Your task to perform on an android device: make emails show in primary in the gmail app Image 0: 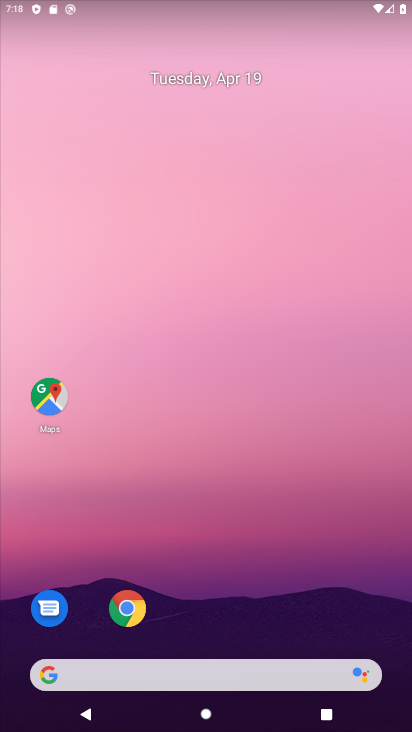
Step 0: drag from (272, 574) to (301, 206)
Your task to perform on an android device: make emails show in primary in the gmail app Image 1: 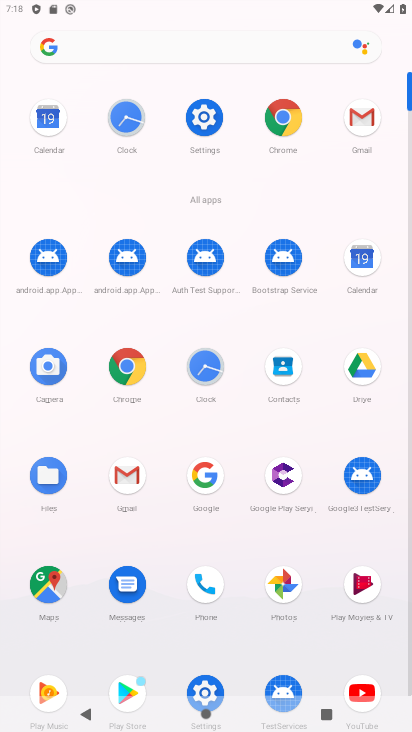
Step 1: click (123, 477)
Your task to perform on an android device: make emails show in primary in the gmail app Image 2: 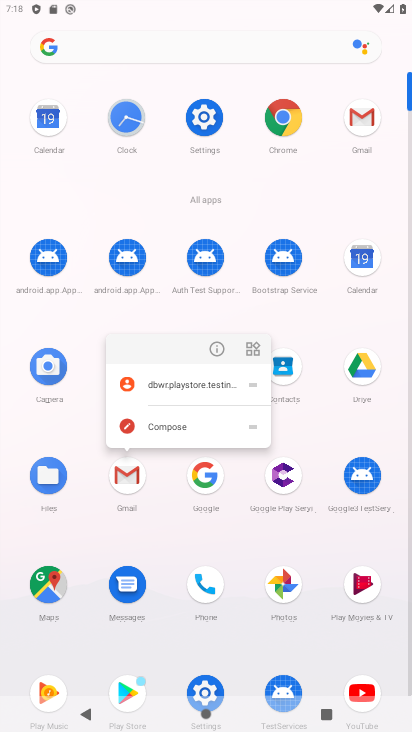
Step 2: click (121, 474)
Your task to perform on an android device: make emails show in primary in the gmail app Image 3: 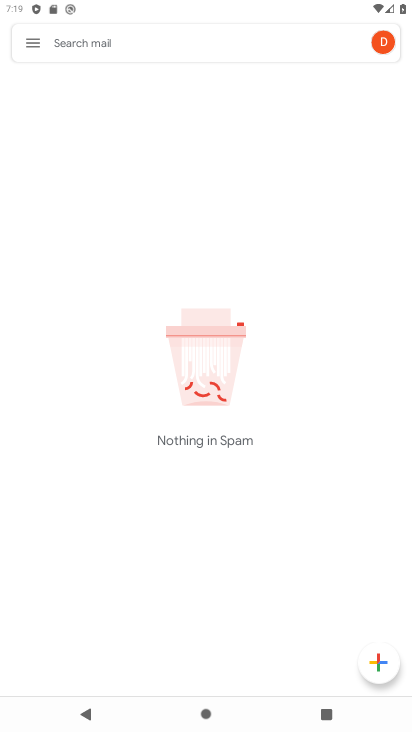
Step 3: click (26, 39)
Your task to perform on an android device: make emails show in primary in the gmail app Image 4: 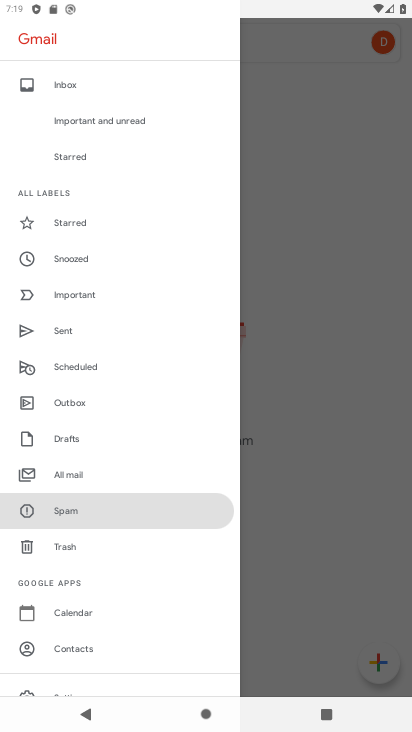
Step 4: drag from (135, 642) to (157, 262)
Your task to perform on an android device: make emails show in primary in the gmail app Image 5: 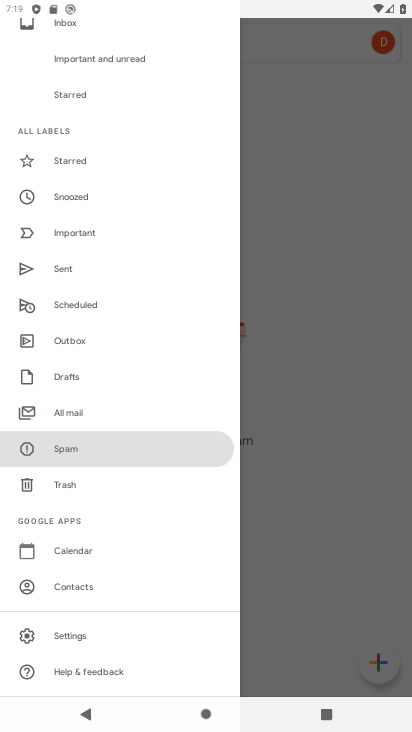
Step 5: click (66, 631)
Your task to perform on an android device: make emails show in primary in the gmail app Image 6: 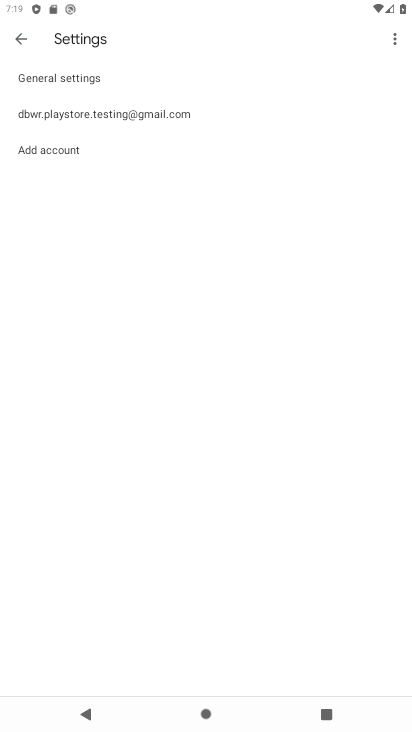
Step 6: click (163, 109)
Your task to perform on an android device: make emails show in primary in the gmail app Image 7: 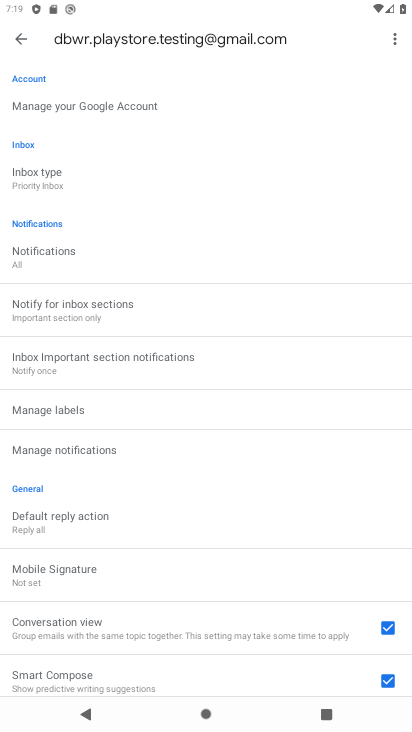
Step 7: click (95, 298)
Your task to perform on an android device: make emails show in primary in the gmail app Image 8: 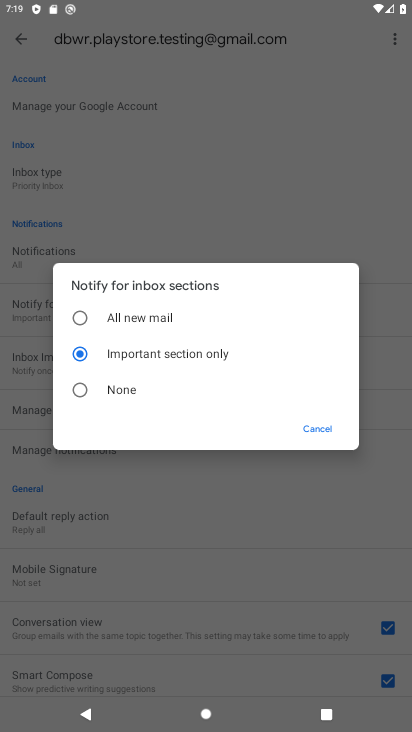
Step 8: click (327, 418)
Your task to perform on an android device: make emails show in primary in the gmail app Image 9: 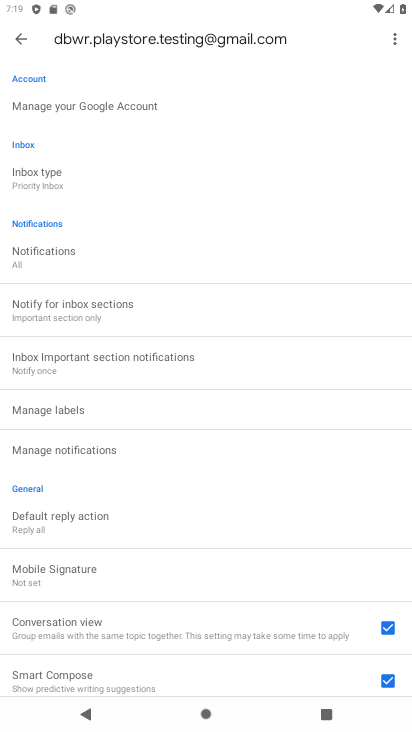
Step 9: task complete